Your task to perform on an android device: toggle location history Image 0: 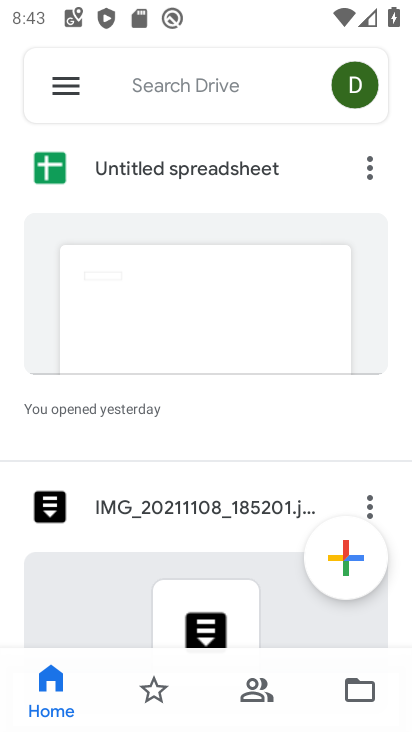
Step 0: press home button
Your task to perform on an android device: toggle location history Image 1: 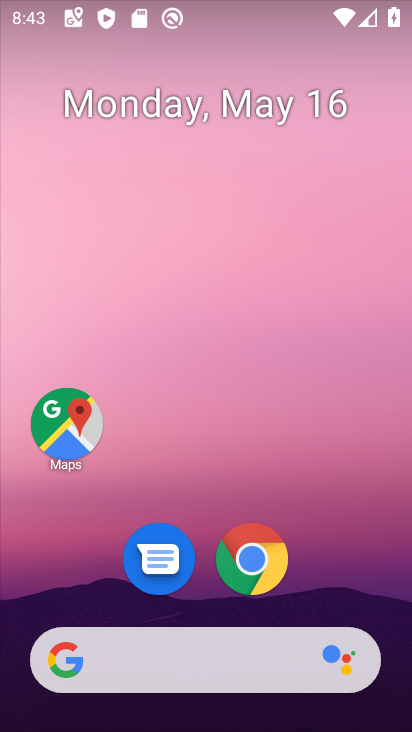
Step 1: drag from (328, 577) to (381, 23)
Your task to perform on an android device: toggle location history Image 2: 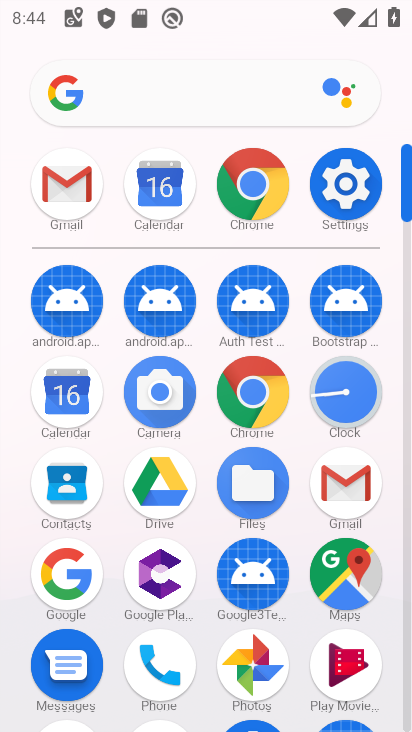
Step 2: click (358, 187)
Your task to perform on an android device: toggle location history Image 3: 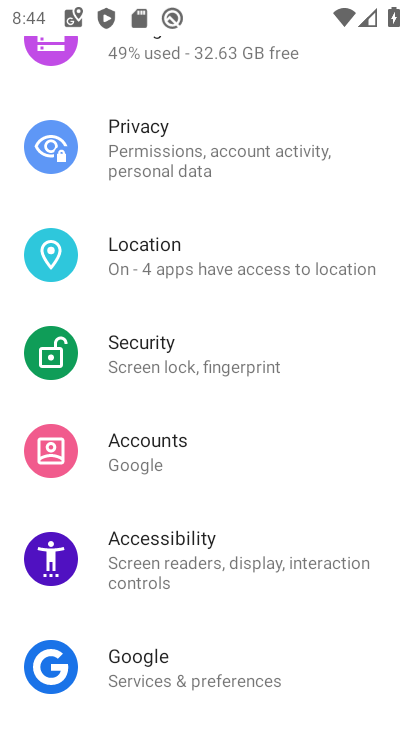
Step 3: click (147, 239)
Your task to perform on an android device: toggle location history Image 4: 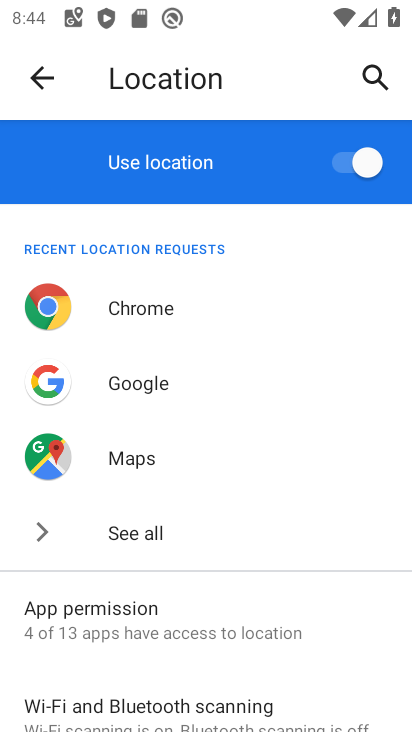
Step 4: drag from (191, 668) to (234, 423)
Your task to perform on an android device: toggle location history Image 5: 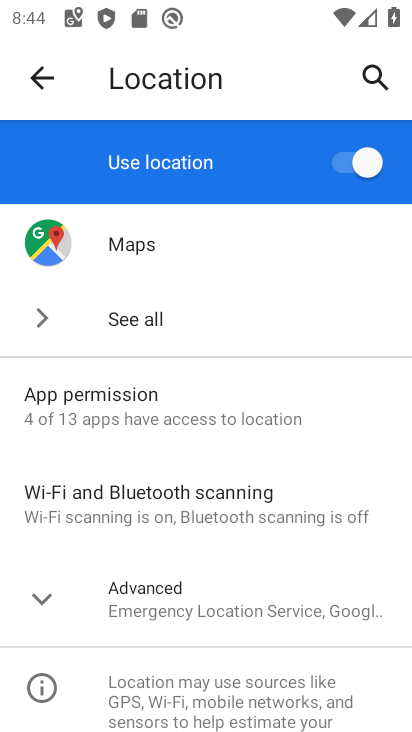
Step 5: click (150, 609)
Your task to perform on an android device: toggle location history Image 6: 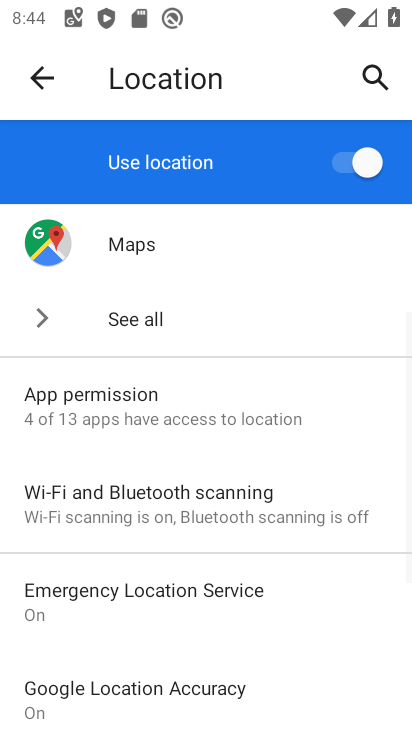
Step 6: drag from (166, 652) to (205, 399)
Your task to perform on an android device: toggle location history Image 7: 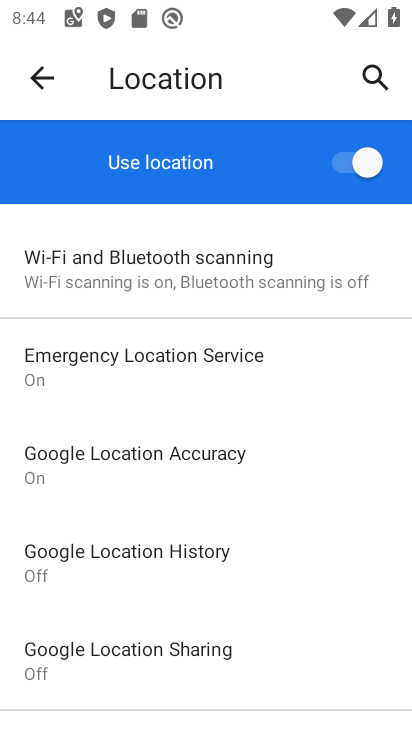
Step 7: click (115, 554)
Your task to perform on an android device: toggle location history Image 8: 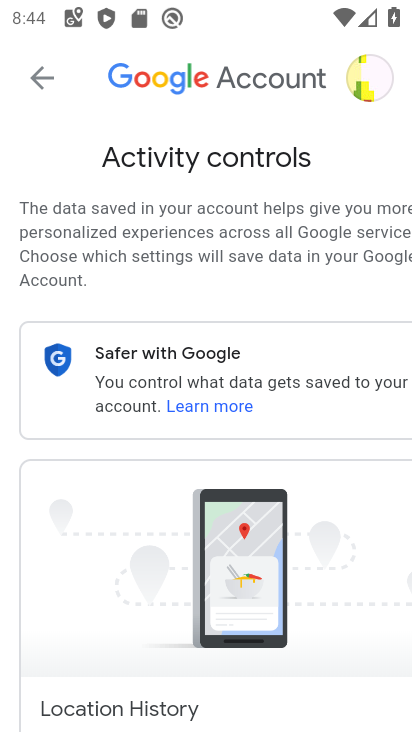
Step 8: drag from (276, 492) to (327, 191)
Your task to perform on an android device: toggle location history Image 9: 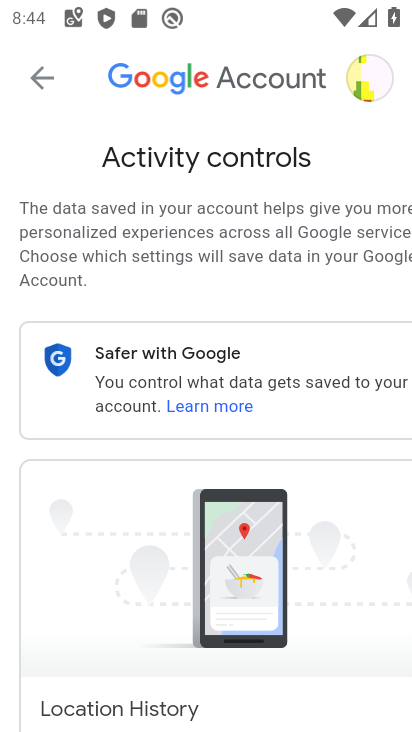
Step 9: drag from (226, 538) to (227, 222)
Your task to perform on an android device: toggle location history Image 10: 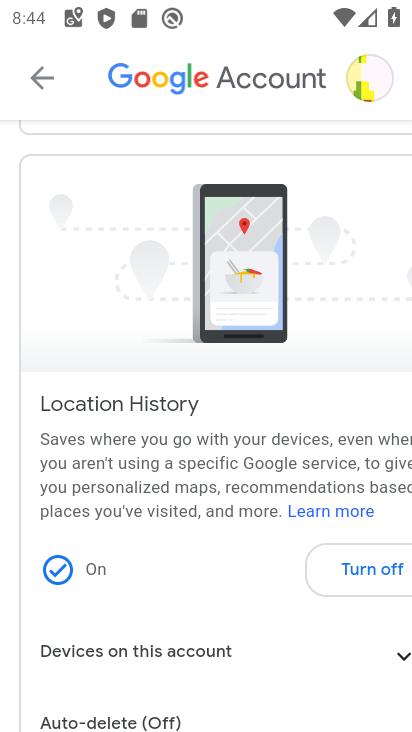
Step 10: click (347, 575)
Your task to perform on an android device: toggle location history Image 11: 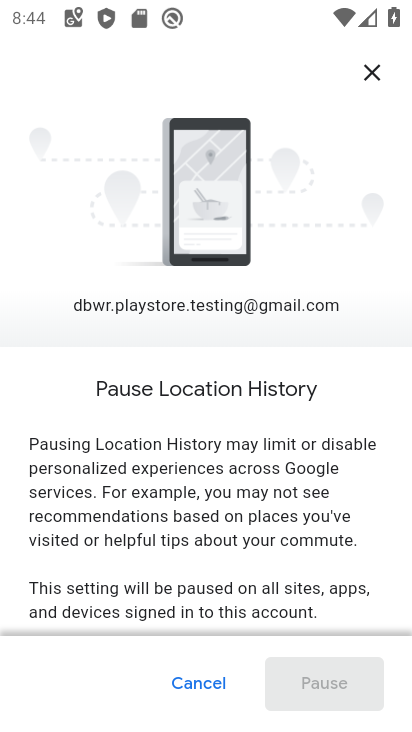
Step 11: drag from (282, 621) to (299, 189)
Your task to perform on an android device: toggle location history Image 12: 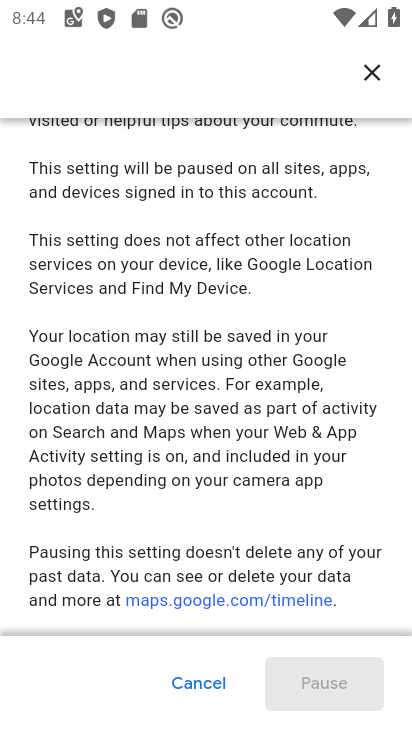
Step 12: drag from (255, 603) to (259, 232)
Your task to perform on an android device: toggle location history Image 13: 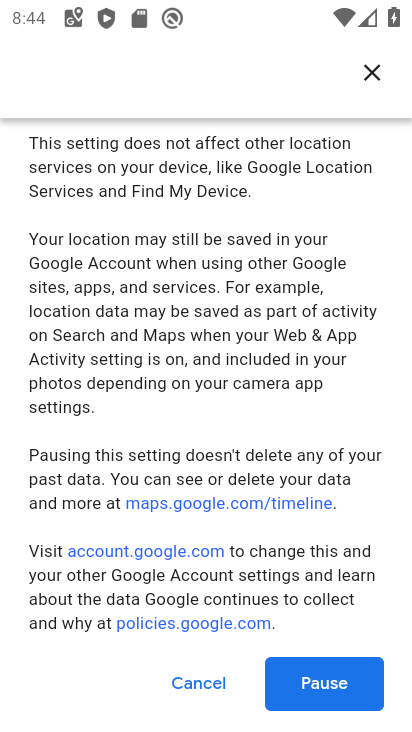
Step 13: click (318, 674)
Your task to perform on an android device: toggle location history Image 14: 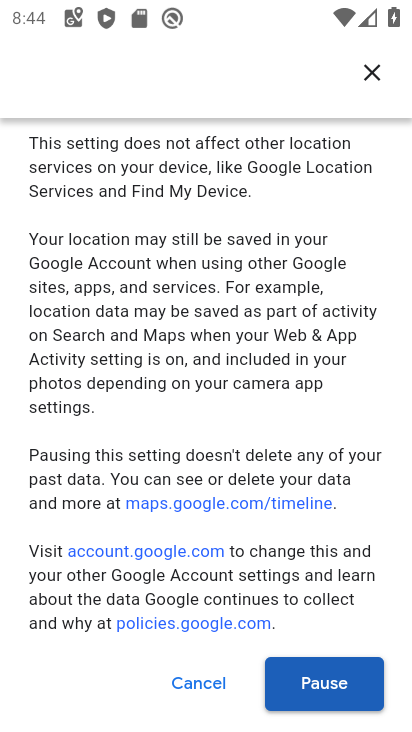
Step 14: click (309, 681)
Your task to perform on an android device: toggle location history Image 15: 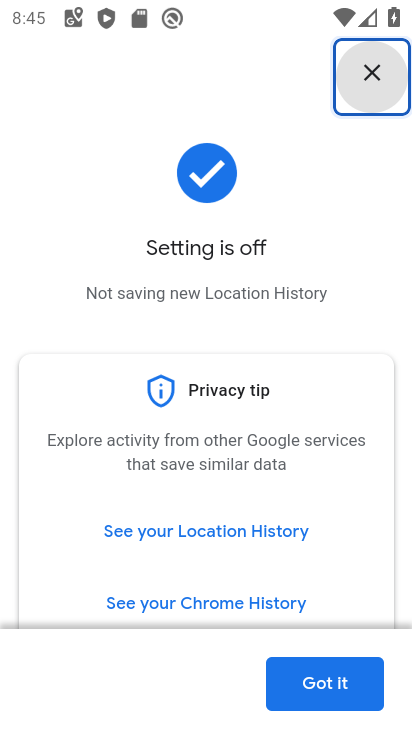
Step 15: task complete